Your task to perform on an android device: Go to display settings Image 0: 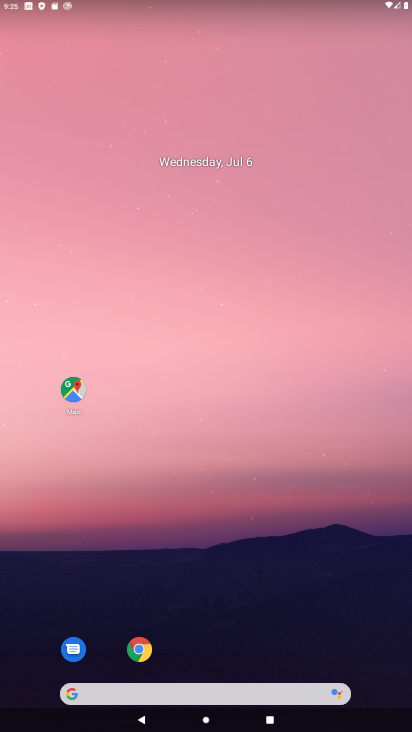
Step 0: drag from (185, 692) to (191, 145)
Your task to perform on an android device: Go to display settings Image 1: 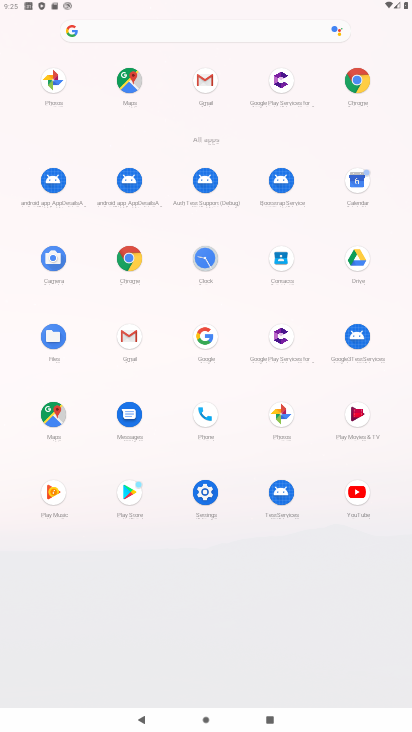
Step 1: click (199, 509)
Your task to perform on an android device: Go to display settings Image 2: 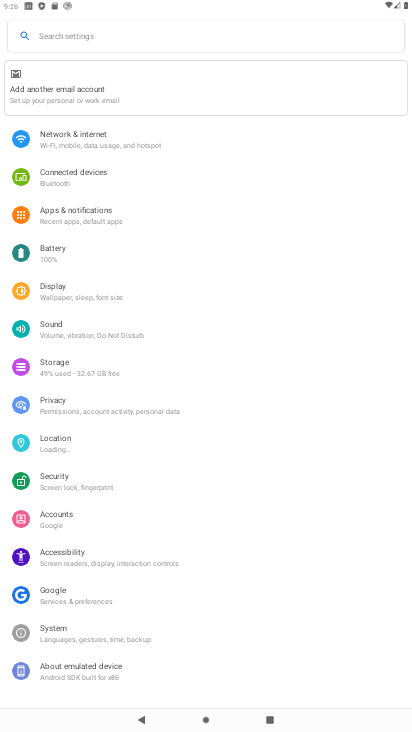
Step 2: click (59, 291)
Your task to perform on an android device: Go to display settings Image 3: 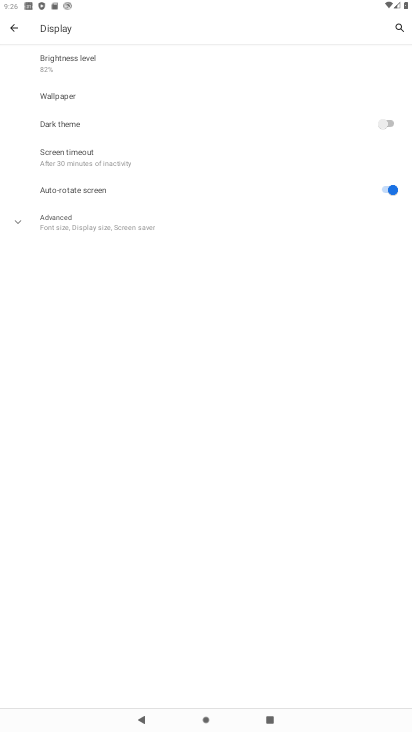
Step 3: task complete